Your task to perform on an android device: snooze an email in the gmail app Image 0: 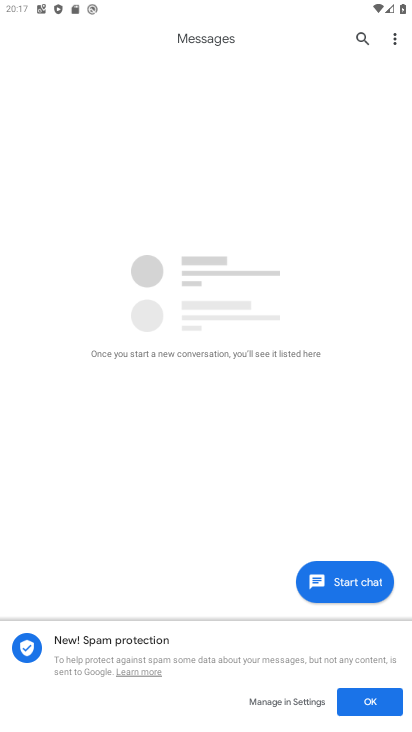
Step 0: press back button
Your task to perform on an android device: snooze an email in the gmail app Image 1: 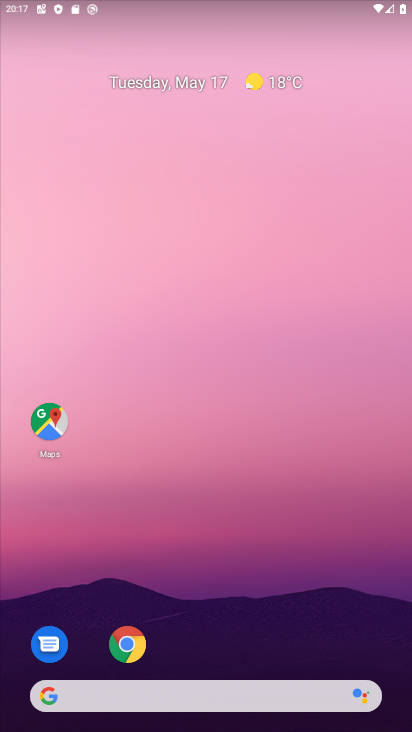
Step 1: drag from (229, 590) to (307, 142)
Your task to perform on an android device: snooze an email in the gmail app Image 2: 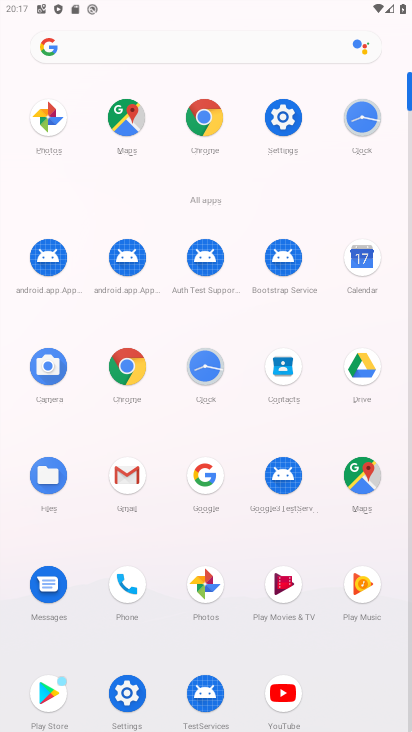
Step 2: click (128, 470)
Your task to perform on an android device: snooze an email in the gmail app Image 3: 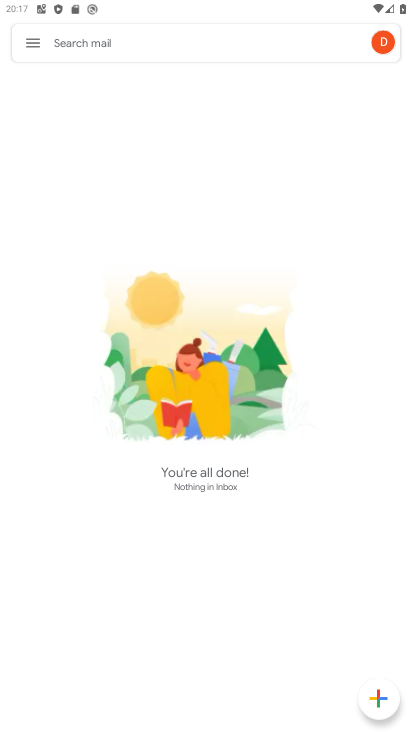
Step 3: click (27, 45)
Your task to perform on an android device: snooze an email in the gmail app Image 4: 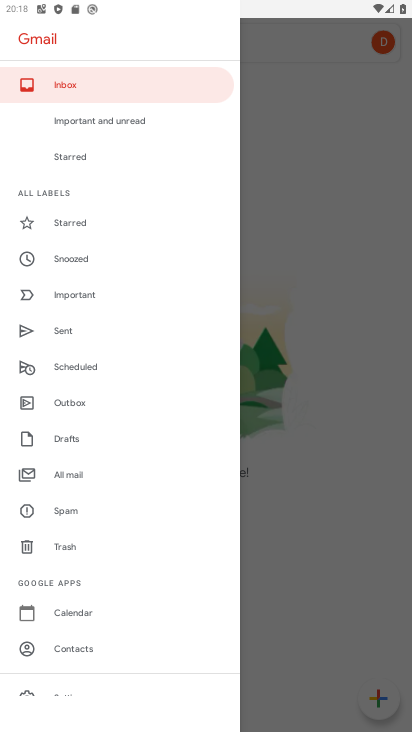
Step 4: click (75, 460)
Your task to perform on an android device: snooze an email in the gmail app Image 5: 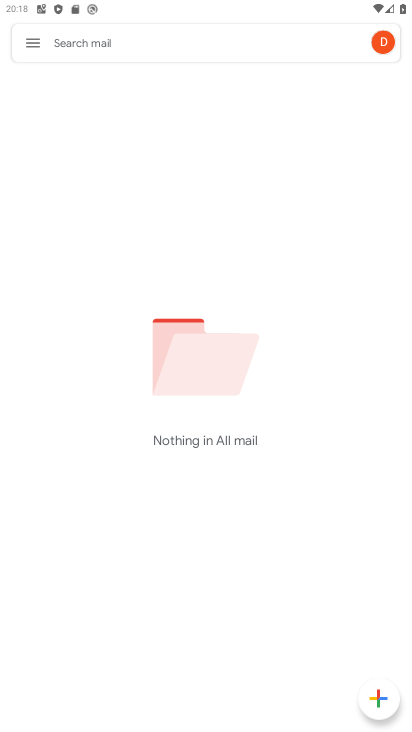
Step 5: task complete